Your task to perform on an android device: Open wifi settings Image 0: 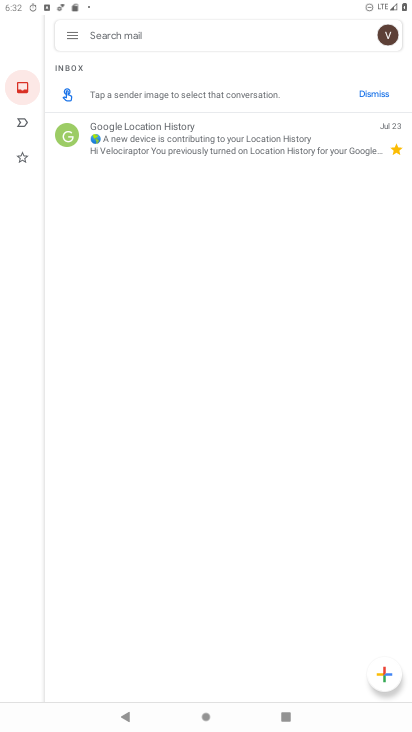
Step 0: press home button
Your task to perform on an android device: Open wifi settings Image 1: 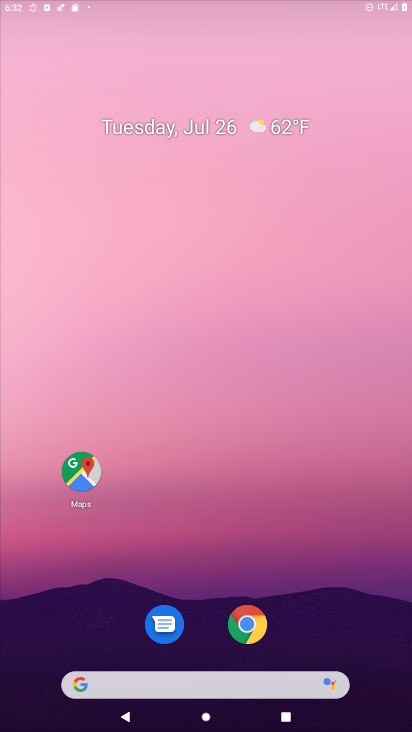
Step 1: drag from (264, 690) to (412, 209)
Your task to perform on an android device: Open wifi settings Image 2: 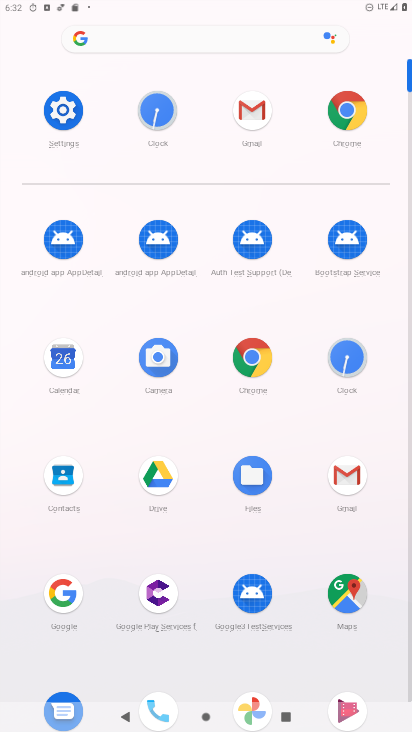
Step 2: click (73, 120)
Your task to perform on an android device: Open wifi settings Image 3: 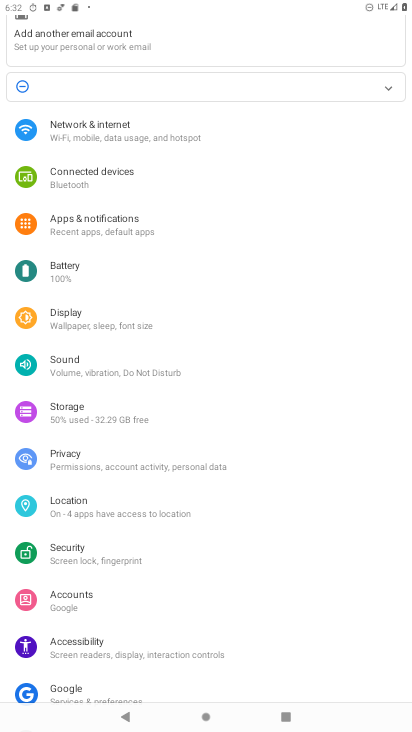
Step 3: click (121, 135)
Your task to perform on an android device: Open wifi settings Image 4: 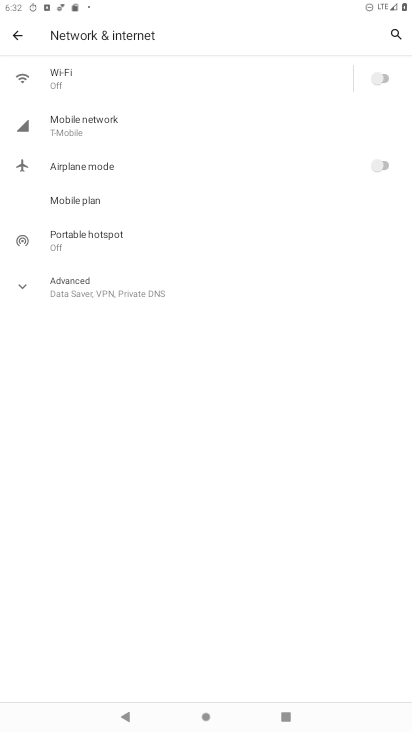
Step 4: click (108, 76)
Your task to perform on an android device: Open wifi settings Image 5: 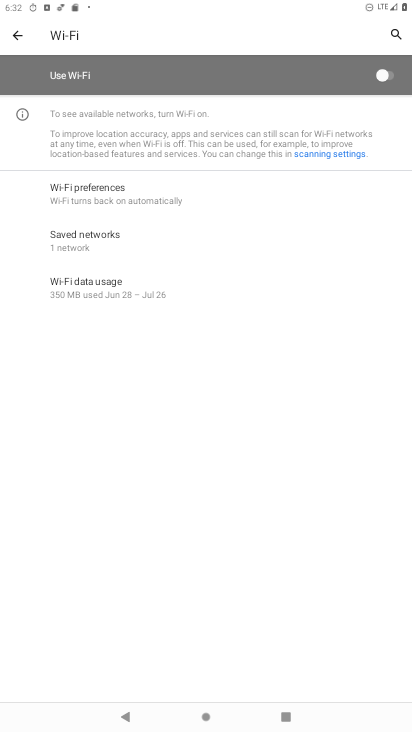
Step 5: task complete